Your task to perform on an android device: When is my next appointment? Image 0: 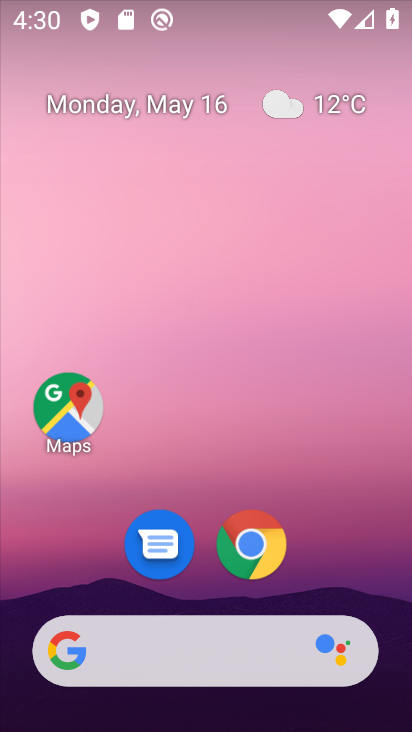
Step 0: drag from (335, 581) to (241, 163)
Your task to perform on an android device: When is my next appointment? Image 1: 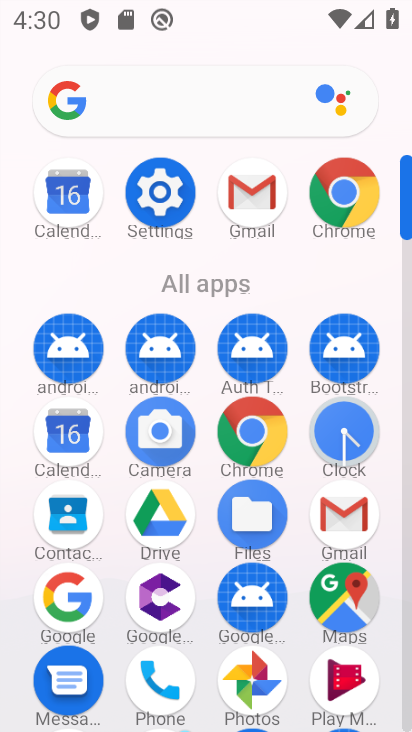
Step 1: click (67, 435)
Your task to perform on an android device: When is my next appointment? Image 2: 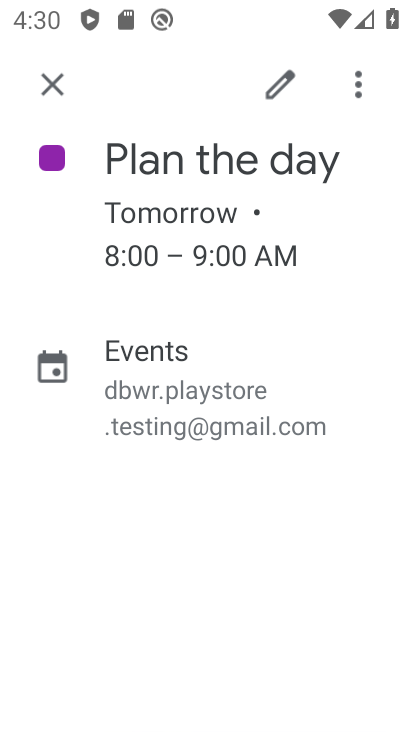
Step 2: click (54, 88)
Your task to perform on an android device: When is my next appointment? Image 3: 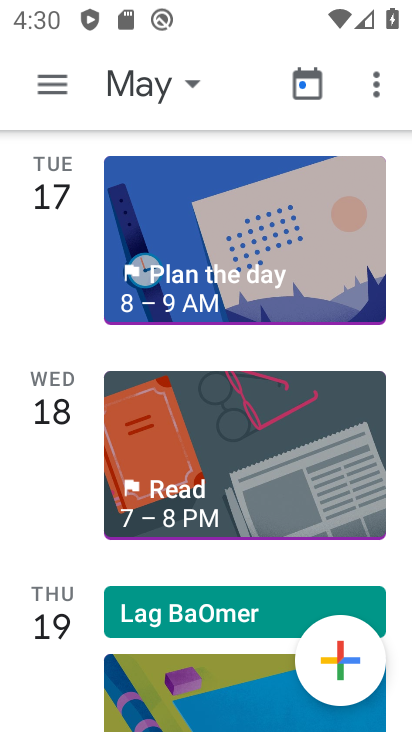
Step 3: click (308, 82)
Your task to perform on an android device: When is my next appointment? Image 4: 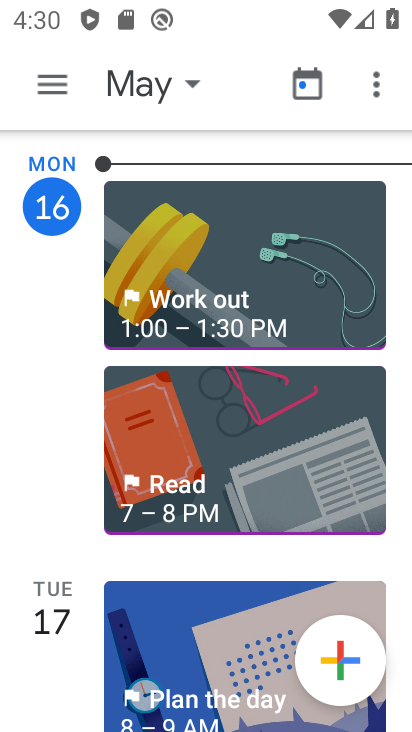
Step 4: click (186, 86)
Your task to perform on an android device: When is my next appointment? Image 5: 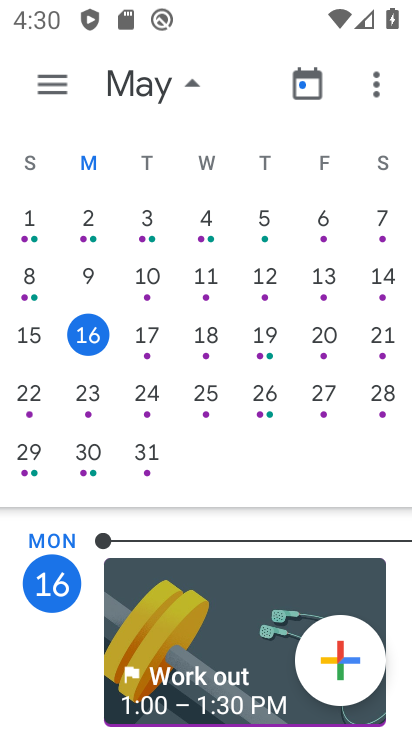
Step 5: click (264, 328)
Your task to perform on an android device: When is my next appointment? Image 6: 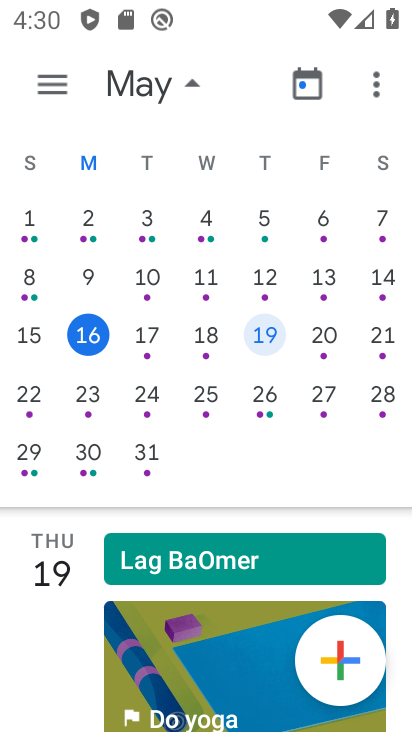
Step 6: click (73, 88)
Your task to perform on an android device: When is my next appointment? Image 7: 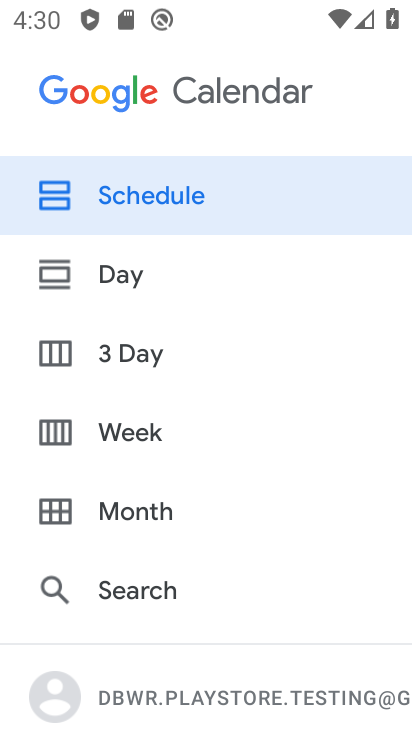
Step 7: click (121, 442)
Your task to perform on an android device: When is my next appointment? Image 8: 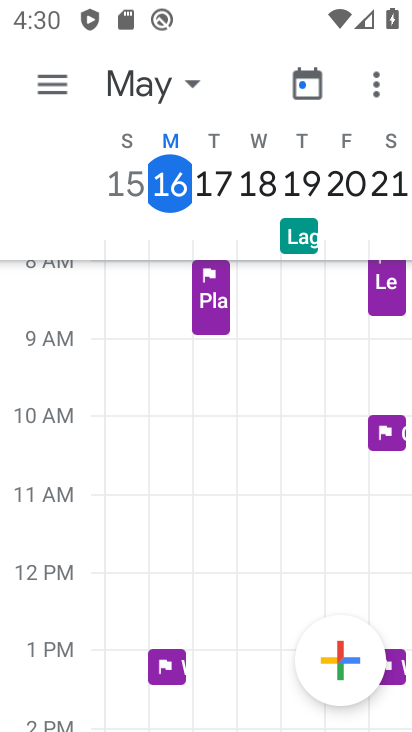
Step 8: task complete